Your task to perform on an android device: turn on the 12-hour format for clock Image 0: 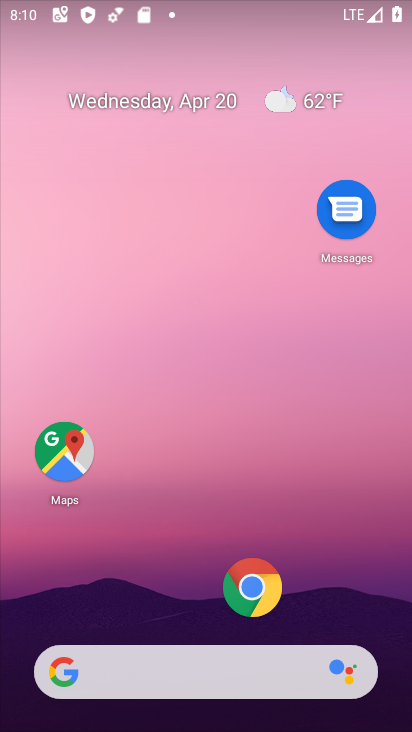
Step 0: drag from (159, 679) to (292, 130)
Your task to perform on an android device: turn on the 12-hour format for clock Image 1: 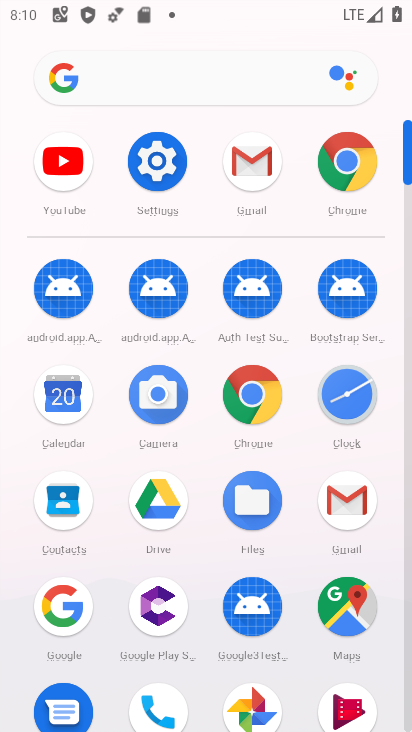
Step 1: click (343, 397)
Your task to perform on an android device: turn on the 12-hour format for clock Image 2: 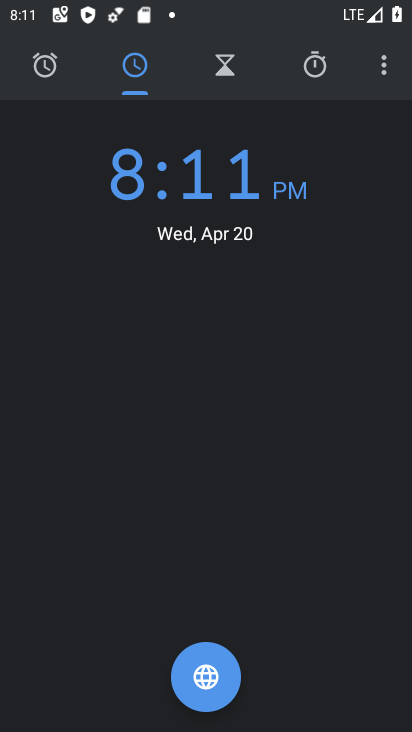
Step 2: click (386, 66)
Your task to perform on an android device: turn on the 12-hour format for clock Image 3: 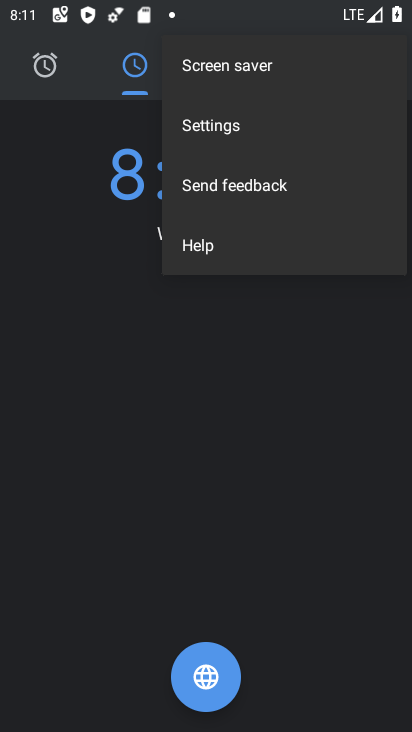
Step 3: click (220, 124)
Your task to perform on an android device: turn on the 12-hour format for clock Image 4: 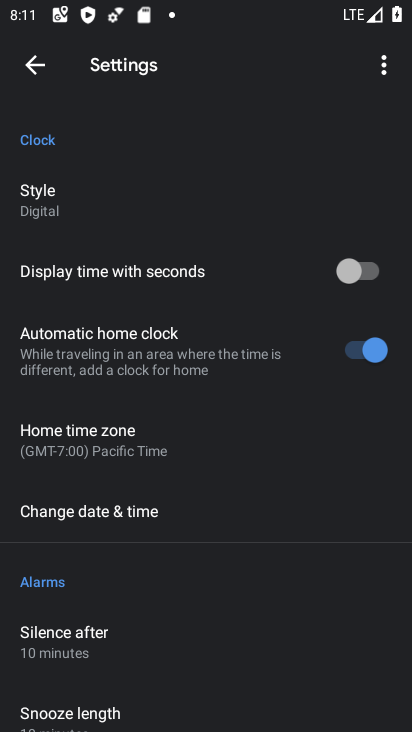
Step 4: click (112, 528)
Your task to perform on an android device: turn on the 12-hour format for clock Image 5: 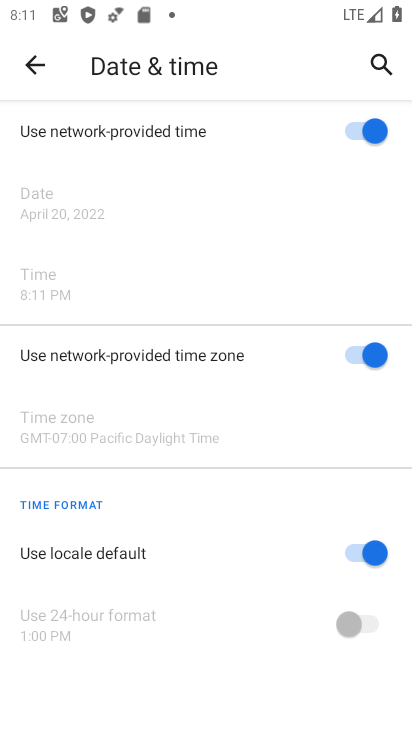
Step 5: task complete